Your task to perform on an android device: Open calendar and show me the first week of next month Image 0: 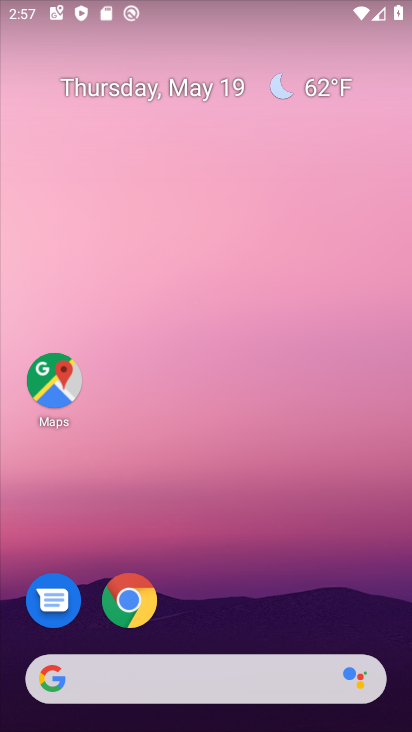
Step 0: drag from (30, 714) to (283, 83)
Your task to perform on an android device: Open calendar and show me the first week of next month Image 1: 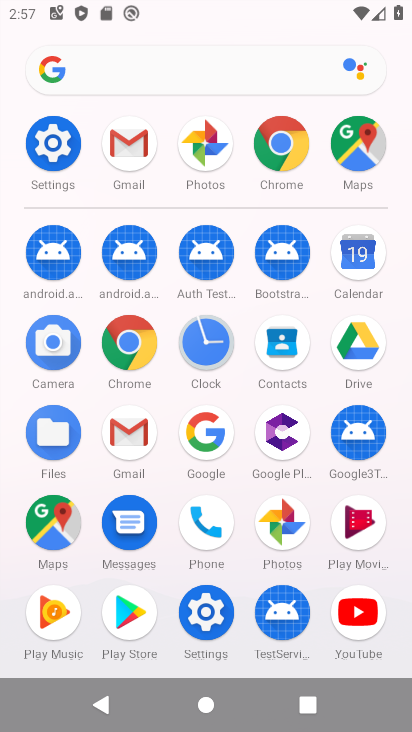
Step 1: click (355, 275)
Your task to perform on an android device: Open calendar and show me the first week of next month Image 2: 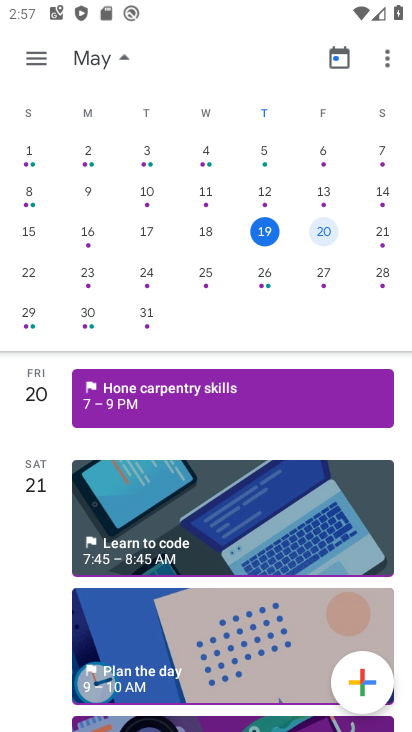
Step 2: drag from (378, 168) to (2, 209)
Your task to perform on an android device: Open calendar and show me the first week of next month Image 3: 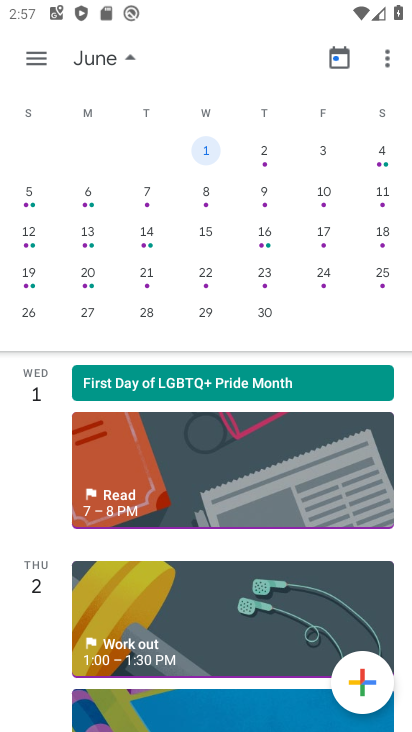
Step 3: click (278, 160)
Your task to perform on an android device: Open calendar and show me the first week of next month Image 4: 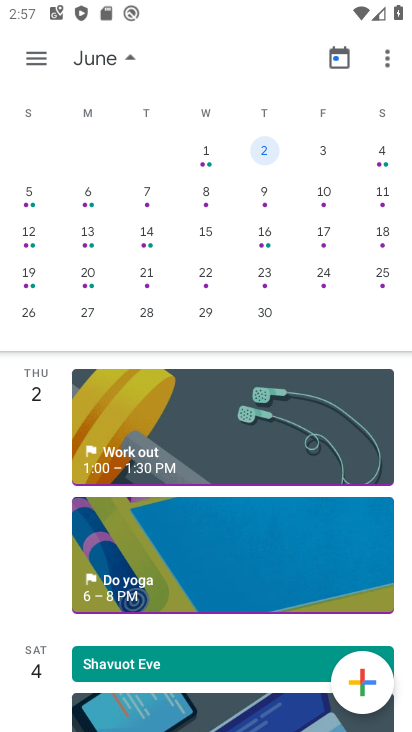
Step 4: click (332, 152)
Your task to perform on an android device: Open calendar and show me the first week of next month Image 5: 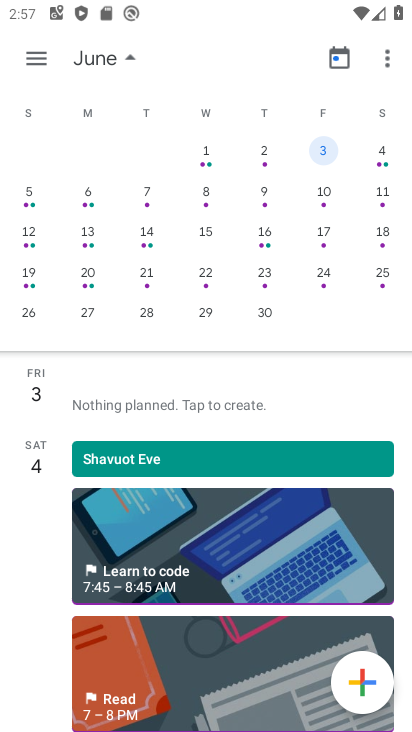
Step 5: task complete